Your task to perform on an android device: turn off translation in the chrome app Image 0: 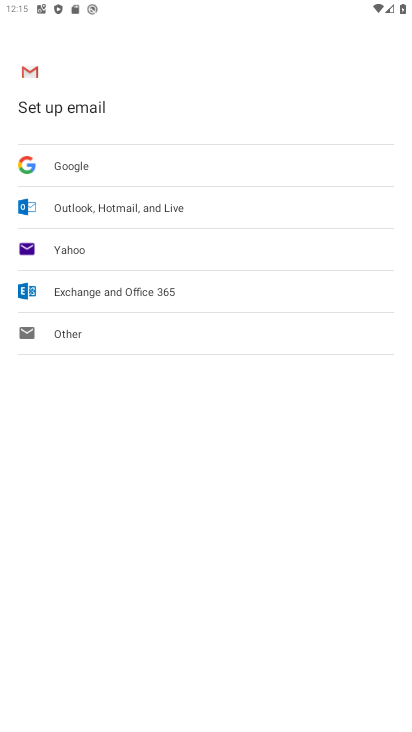
Step 0: press home button
Your task to perform on an android device: turn off translation in the chrome app Image 1: 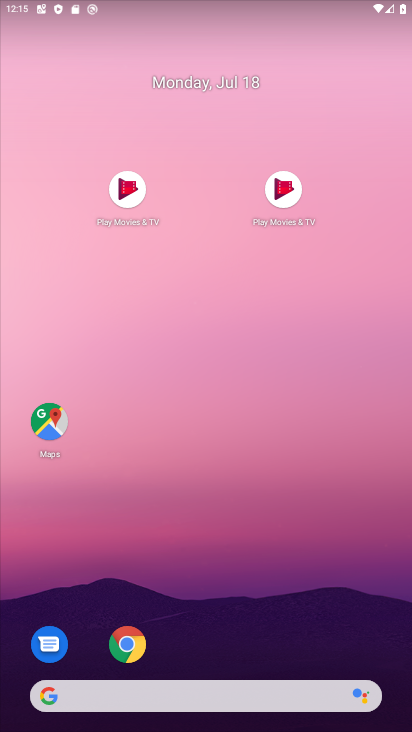
Step 1: drag from (254, 646) to (129, 144)
Your task to perform on an android device: turn off translation in the chrome app Image 2: 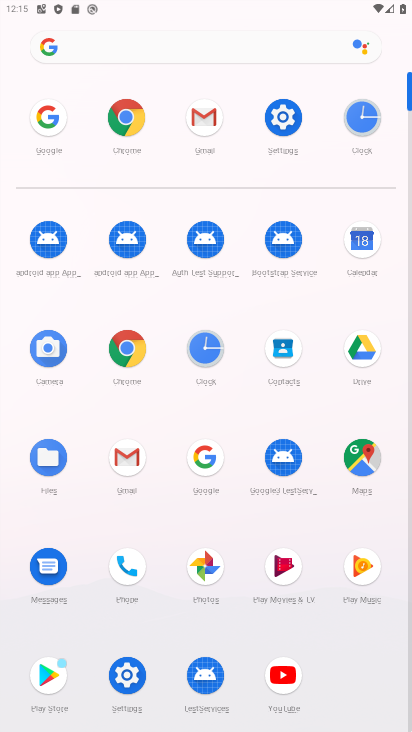
Step 2: click (123, 349)
Your task to perform on an android device: turn off translation in the chrome app Image 3: 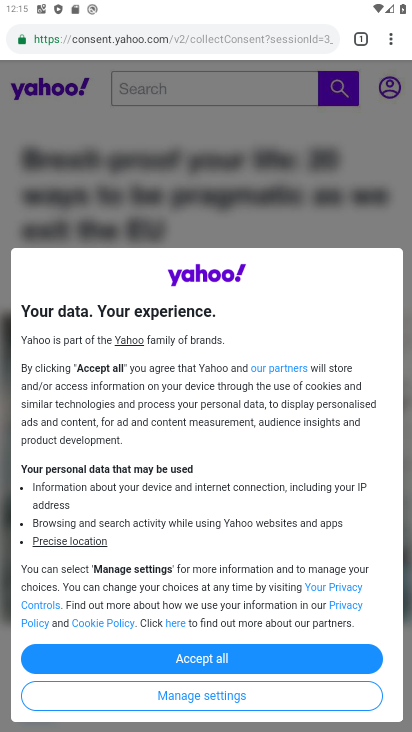
Step 3: drag from (392, 40) to (248, 475)
Your task to perform on an android device: turn off translation in the chrome app Image 4: 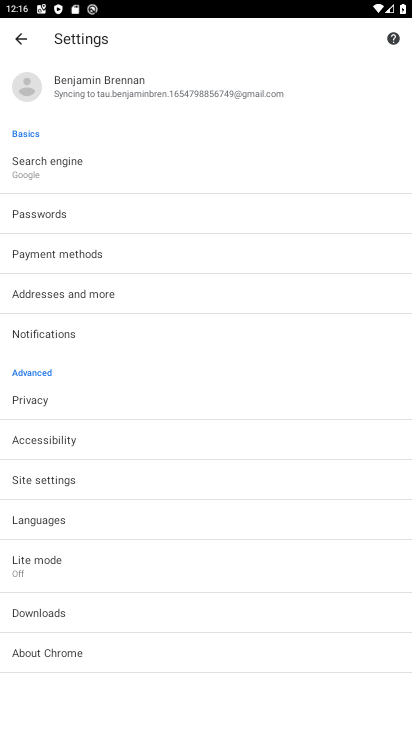
Step 4: click (48, 524)
Your task to perform on an android device: turn off translation in the chrome app Image 5: 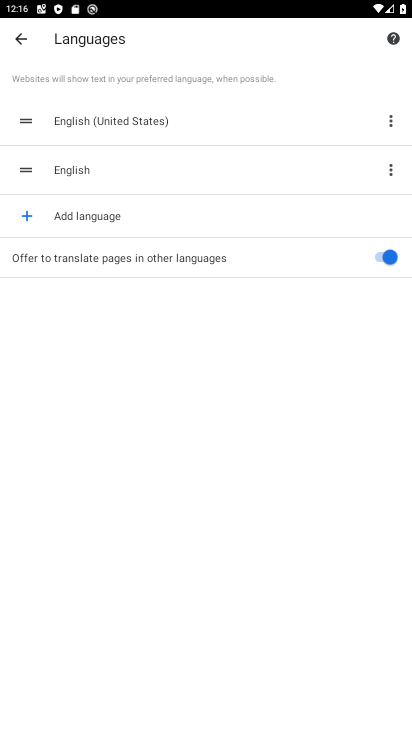
Step 5: click (389, 261)
Your task to perform on an android device: turn off translation in the chrome app Image 6: 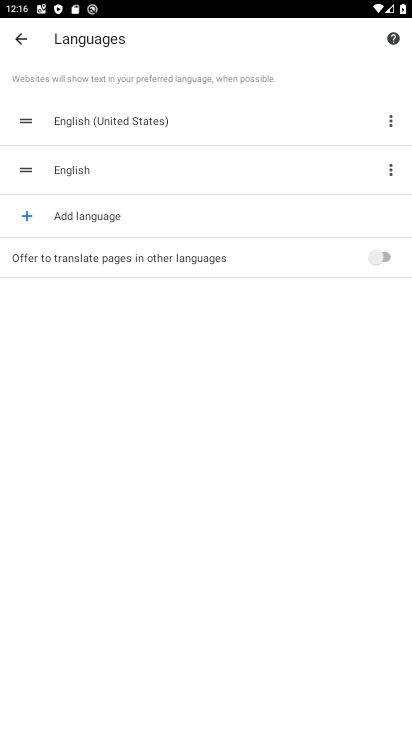
Step 6: task complete